Your task to perform on an android device: turn off wifi Image 0: 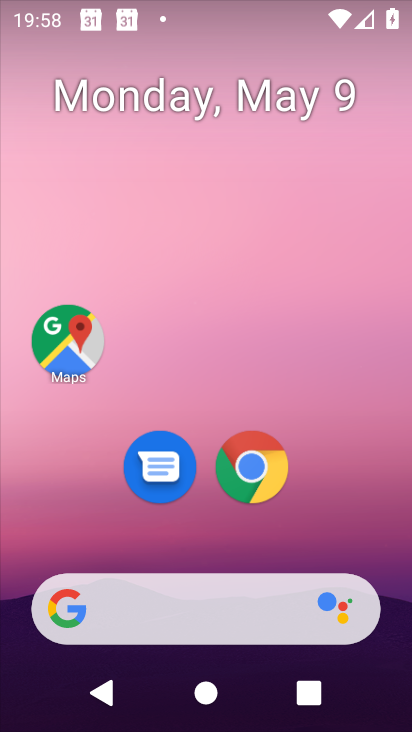
Step 0: drag from (265, 0) to (366, 553)
Your task to perform on an android device: turn off wifi Image 1: 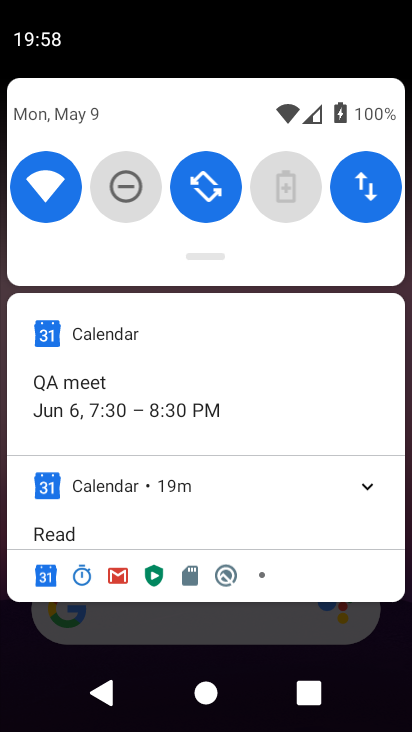
Step 1: click (47, 174)
Your task to perform on an android device: turn off wifi Image 2: 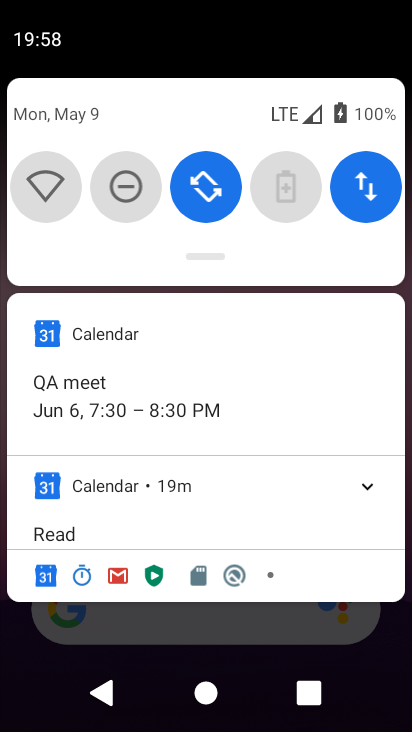
Step 2: task complete